Your task to perform on an android device: Open Wikipedia Image 0: 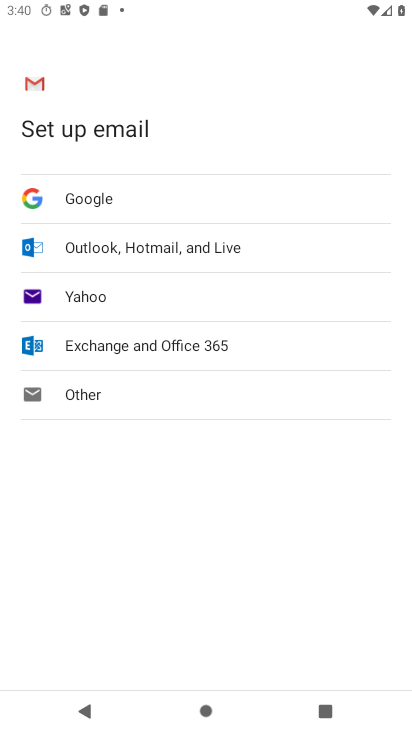
Step 0: press home button
Your task to perform on an android device: Open Wikipedia Image 1: 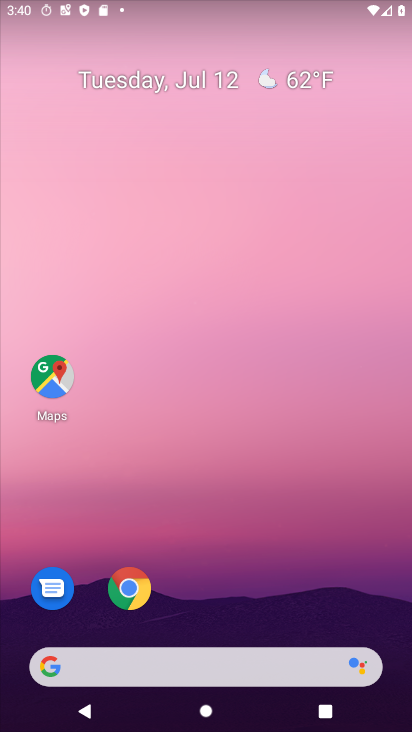
Step 1: click (132, 596)
Your task to perform on an android device: Open Wikipedia Image 2: 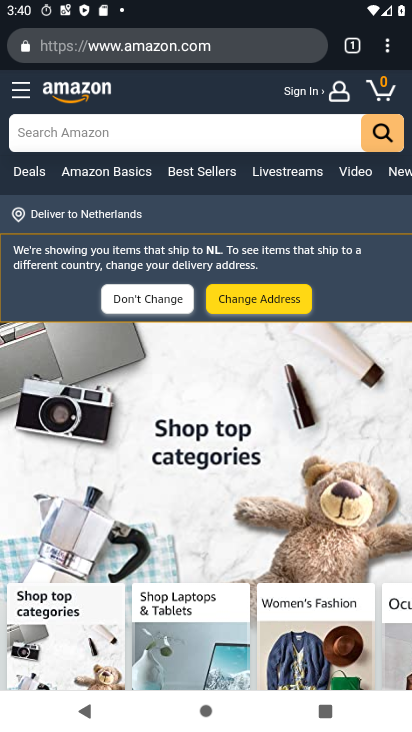
Step 2: click (210, 52)
Your task to perform on an android device: Open Wikipedia Image 3: 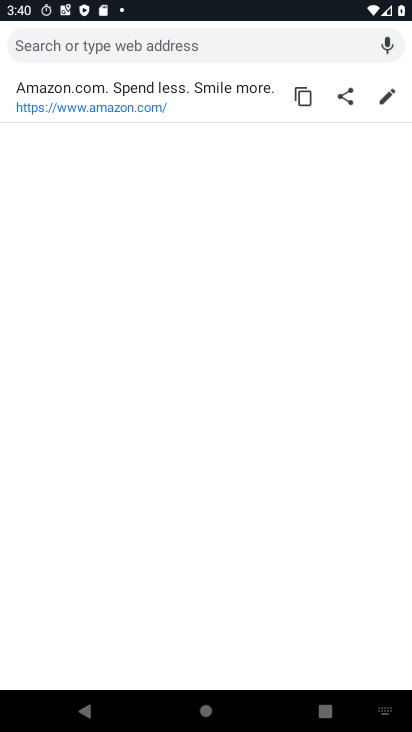
Step 3: type "wikipedia"
Your task to perform on an android device: Open Wikipedia Image 4: 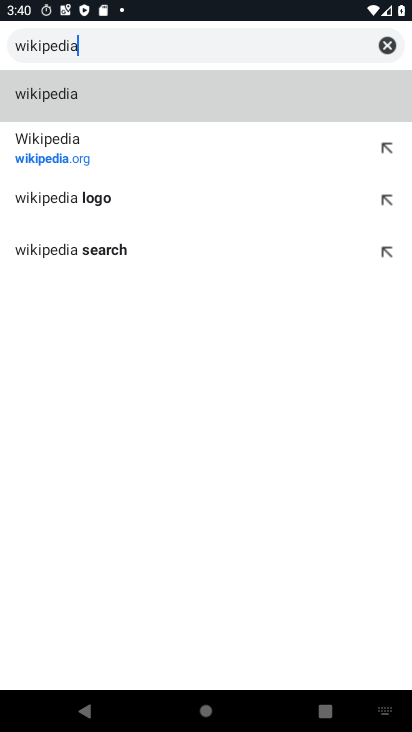
Step 4: click (63, 156)
Your task to perform on an android device: Open Wikipedia Image 5: 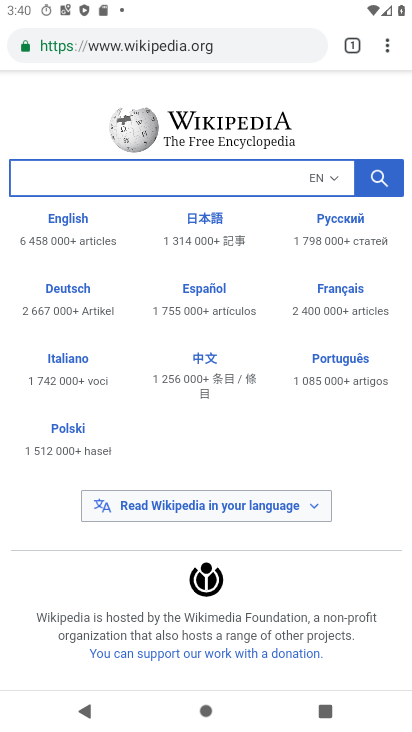
Step 5: task complete